Your task to perform on an android device: check android version Image 0: 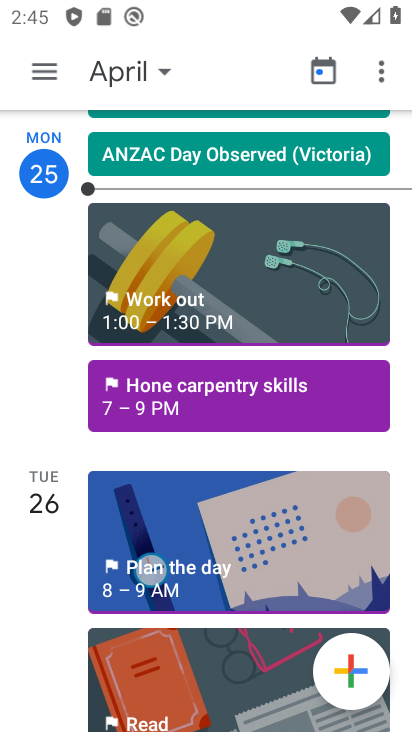
Step 0: press home button
Your task to perform on an android device: check android version Image 1: 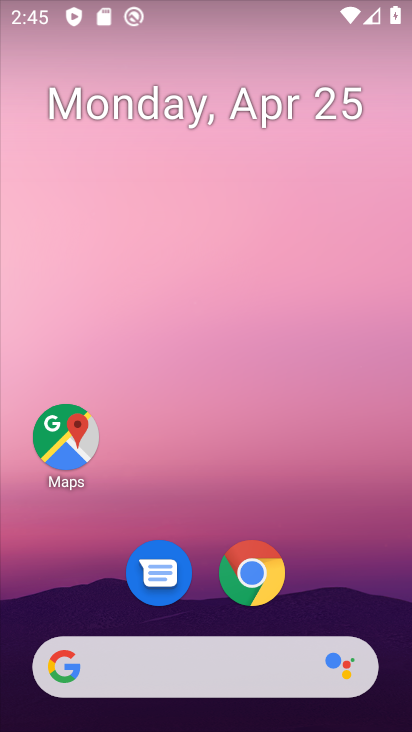
Step 1: drag from (384, 599) to (302, 88)
Your task to perform on an android device: check android version Image 2: 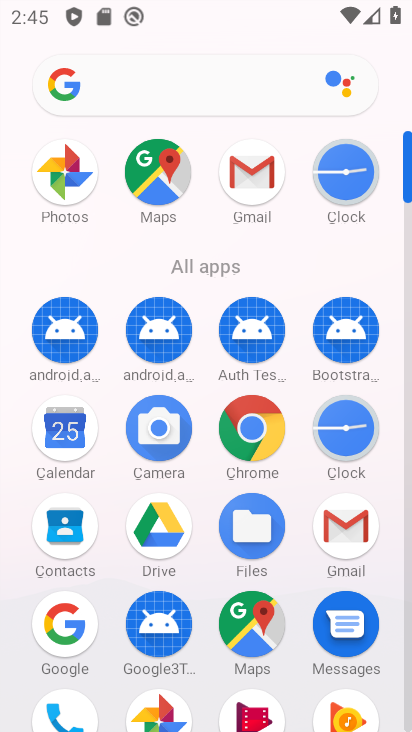
Step 2: drag from (181, 268) to (200, 7)
Your task to perform on an android device: check android version Image 3: 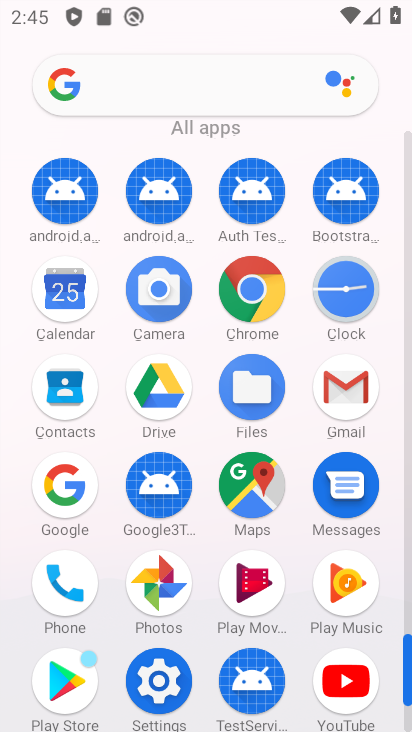
Step 3: click (147, 677)
Your task to perform on an android device: check android version Image 4: 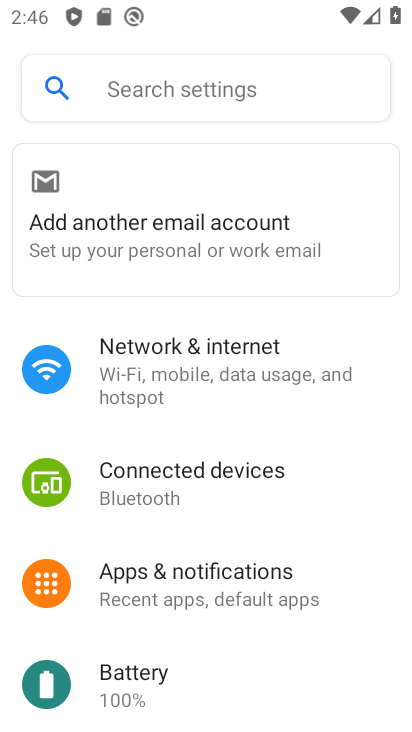
Step 4: drag from (215, 580) to (156, 55)
Your task to perform on an android device: check android version Image 5: 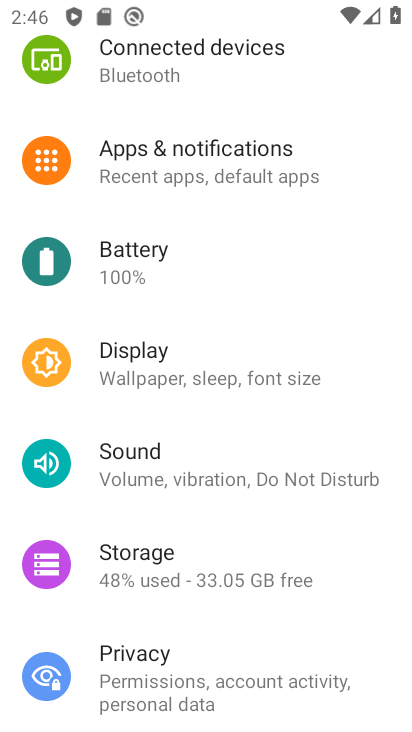
Step 5: drag from (167, 501) to (156, 131)
Your task to perform on an android device: check android version Image 6: 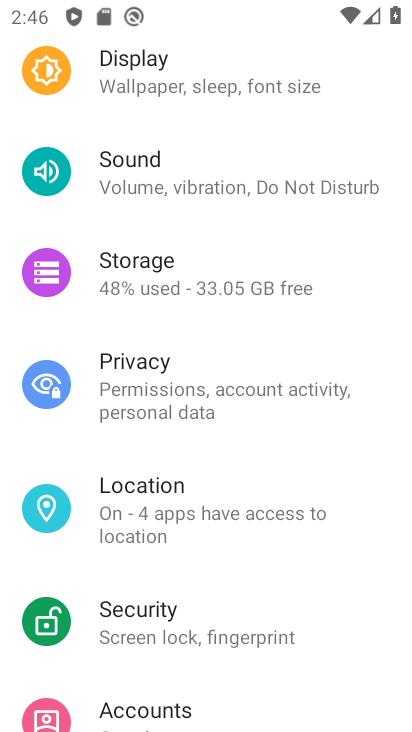
Step 6: drag from (168, 630) to (160, 150)
Your task to perform on an android device: check android version Image 7: 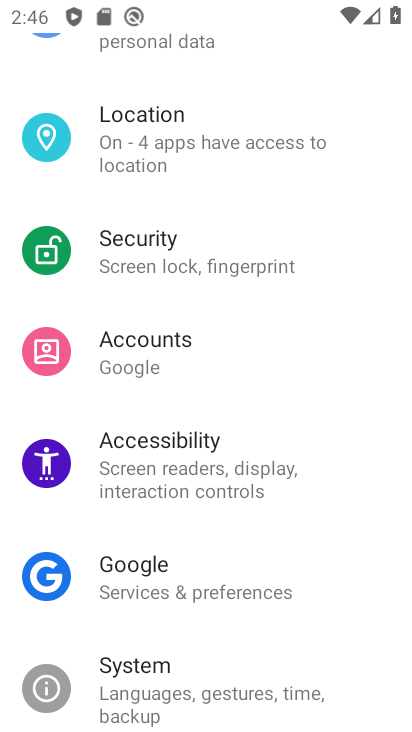
Step 7: drag from (227, 672) to (206, 172)
Your task to perform on an android device: check android version Image 8: 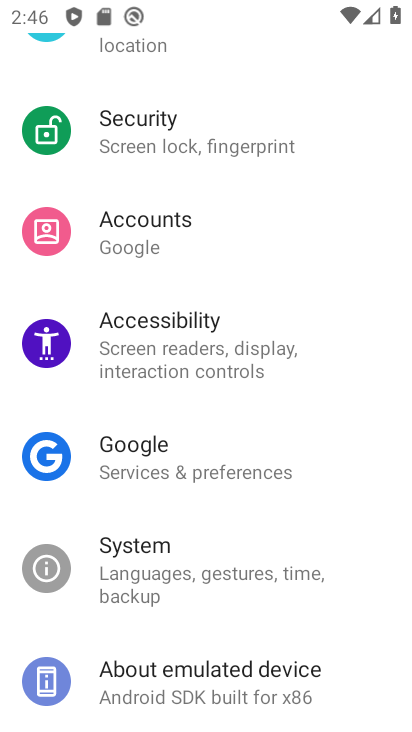
Step 8: drag from (221, 649) to (188, 152)
Your task to perform on an android device: check android version Image 9: 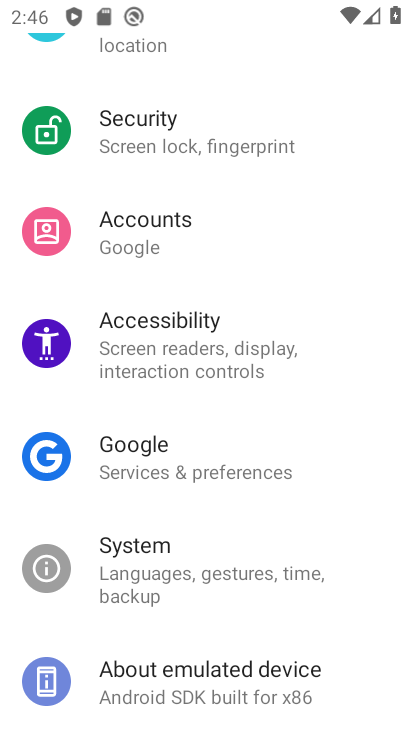
Step 9: click (178, 672)
Your task to perform on an android device: check android version Image 10: 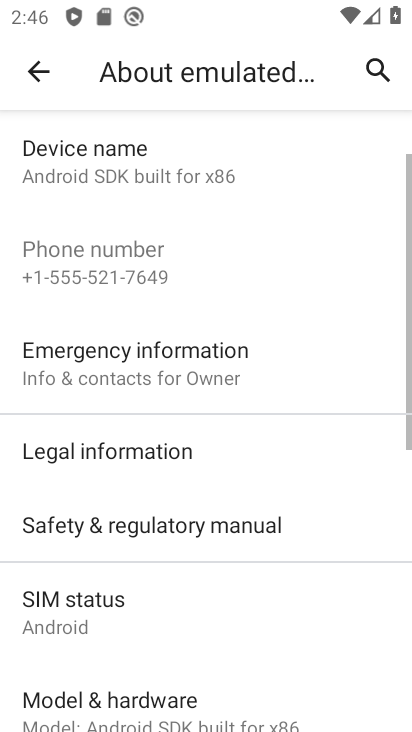
Step 10: drag from (217, 605) to (190, 430)
Your task to perform on an android device: check android version Image 11: 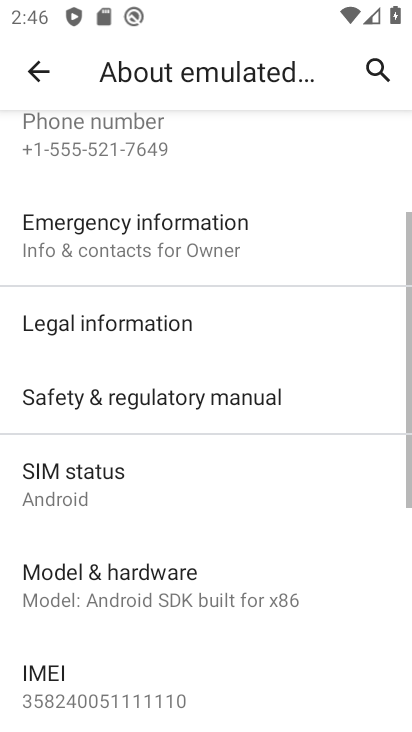
Step 11: drag from (129, 458) to (109, 207)
Your task to perform on an android device: check android version Image 12: 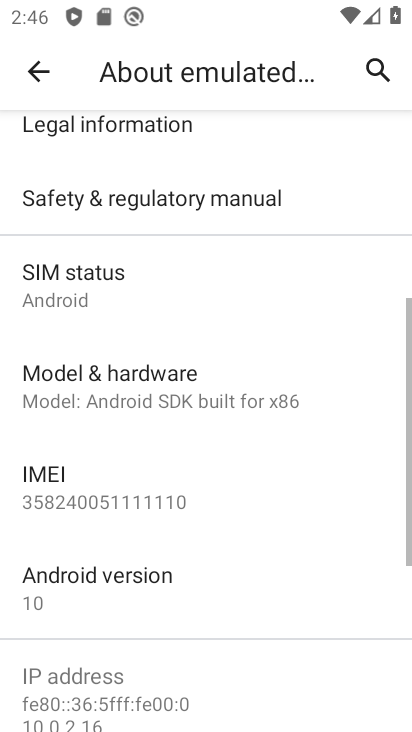
Step 12: click (100, 583)
Your task to perform on an android device: check android version Image 13: 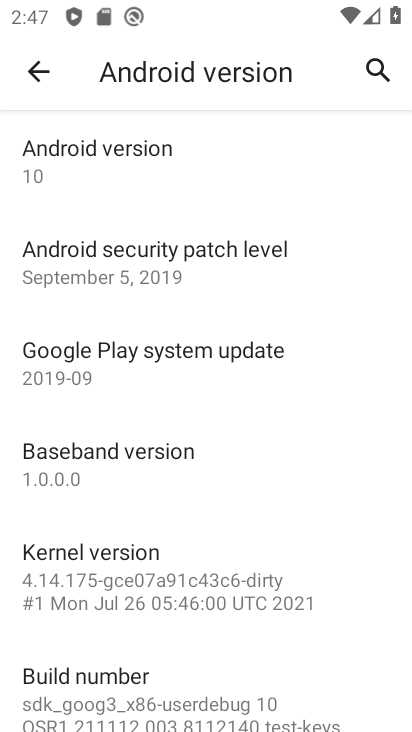
Step 13: task complete